Your task to perform on an android device: How much does the LG TV cost? Image 0: 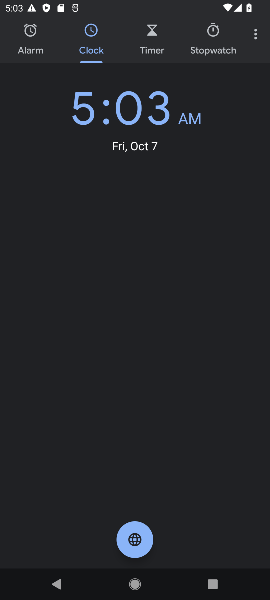
Step 0: click (133, 584)
Your task to perform on an android device: How much does the LG TV cost? Image 1: 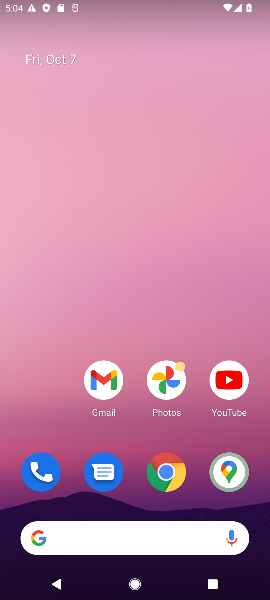
Step 1: click (171, 474)
Your task to perform on an android device: How much does the LG TV cost? Image 2: 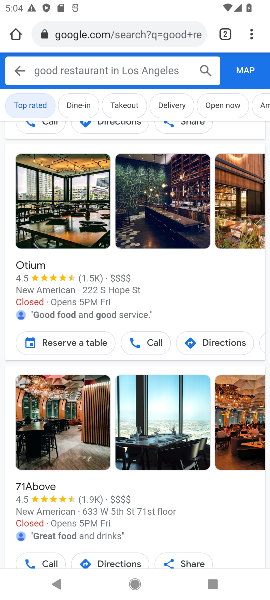
Step 2: click (75, 34)
Your task to perform on an android device: How much does the LG TV cost? Image 3: 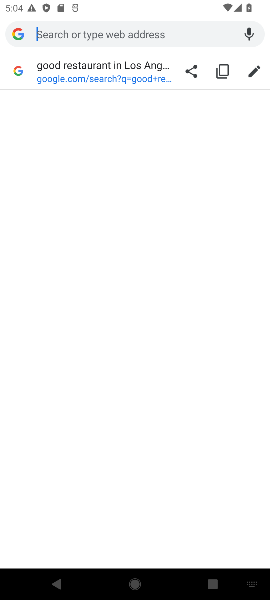
Step 3: type "LG TV cost"
Your task to perform on an android device: How much does the LG TV cost? Image 4: 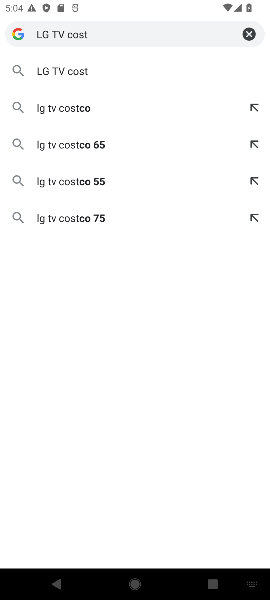
Step 4: click (38, 70)
Your task to perform on an android device: How much does the LG TV cost? Image 5: 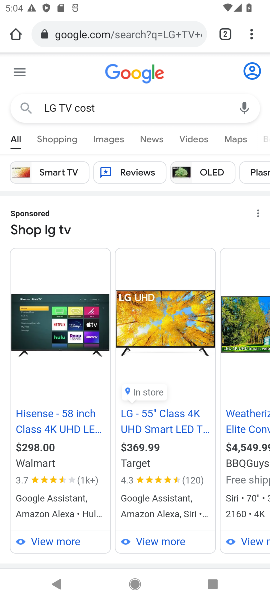
Step 5: task complete